Your task to perform on an android device: delete the emails in spam in the gmail app Image 0: 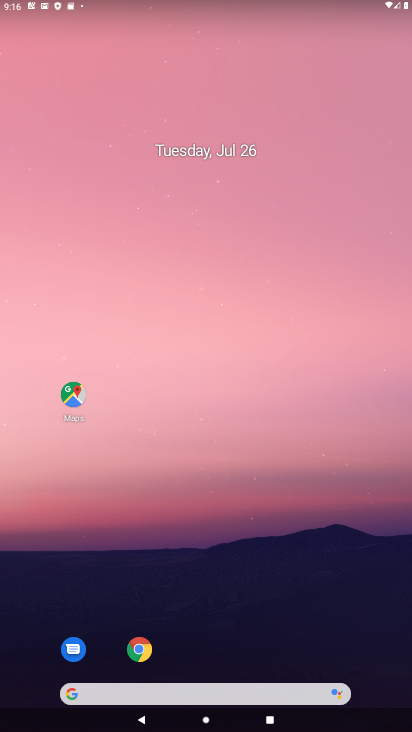
Step 0: drag from (170, 646) to (193, 15)
Your task to perform on an android device: delete the emails in spam in the gmail app Image 1: 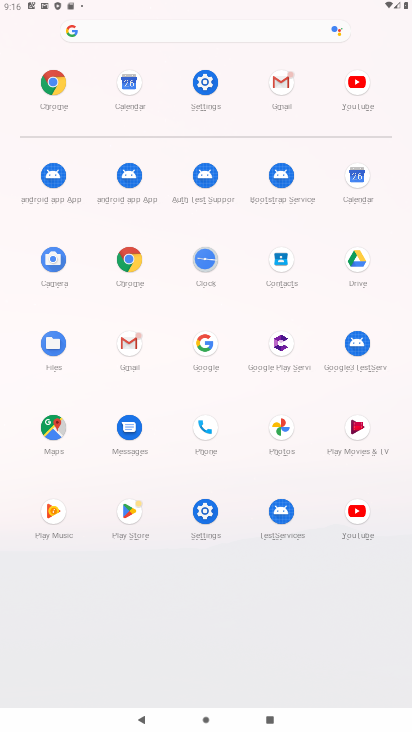
Step 1: click (121, 341)
Your task to perform on an android device: delete the emails in spam in the gmail app Image 2: 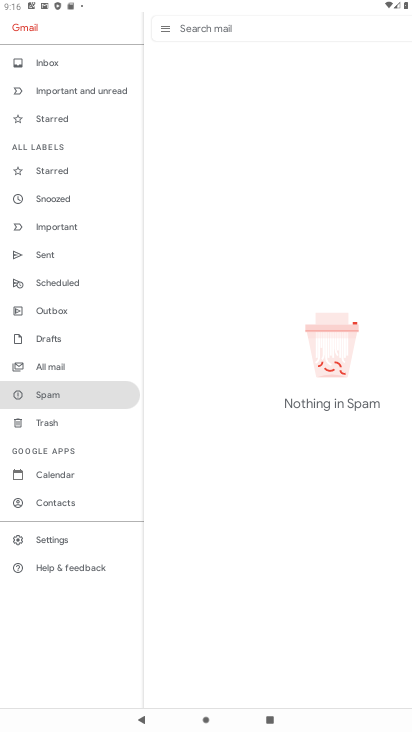
Step 2: click (35, 51)
Your task to perform on an android device: delete the emails in spam in the gmail app Image 3: 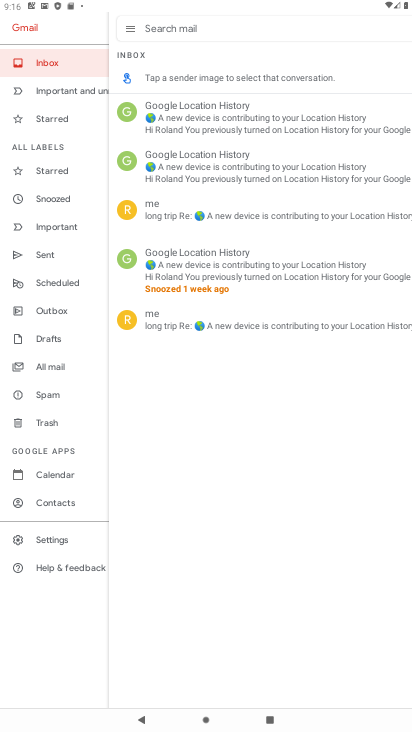
Step 3: click (52, 58)
Your task to perform on an android device: delete the emails in spam in the gmail app Image 4: 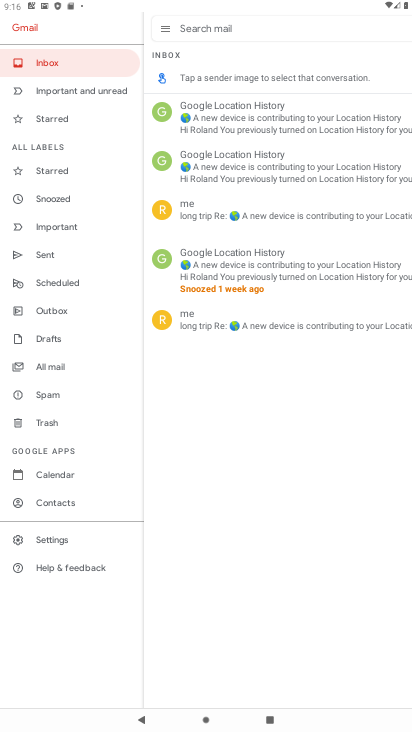
Step 4: drag from (231, 568) to (257, 280)
Your task to perform on an android device: delete the emails in spam in the gmail app Image 5: 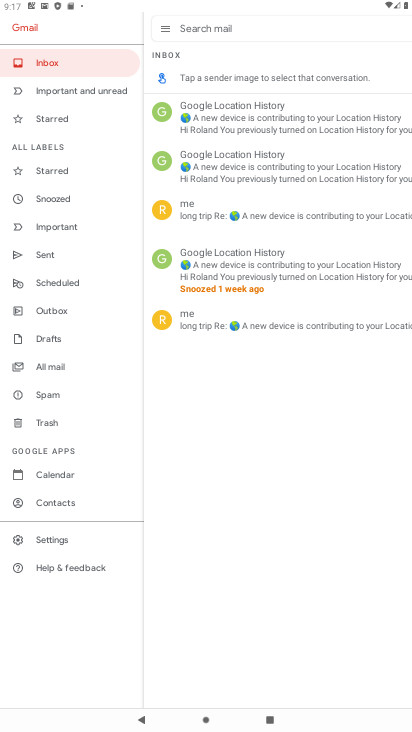
Step 5: click (42, 400)
Your task to perform on an android device: delete the emails in spam in the gmail app Image 6: 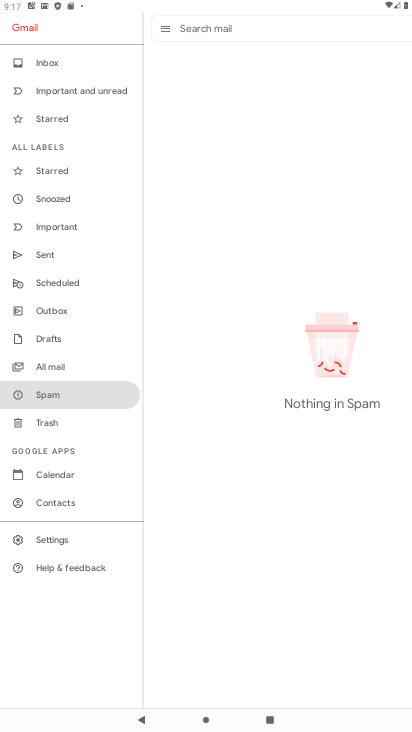
Step 6: task complete